Your task to perform on an android device: delete the emails in spam in the gmail app Image 0: 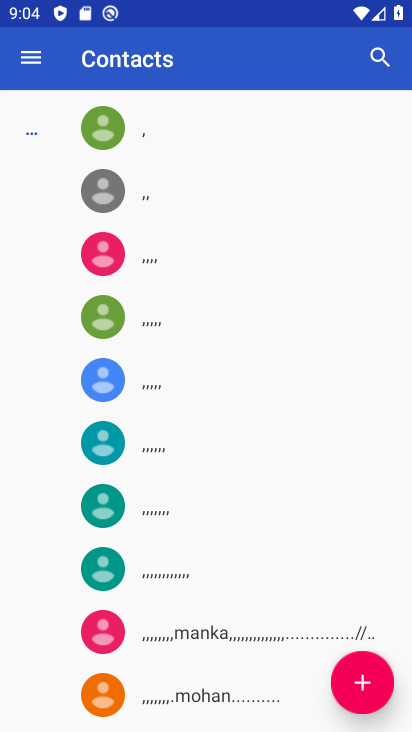
Step 0: press home button
Your task to perform on an android device: delete the emails in spam in the gmail app Image 1: 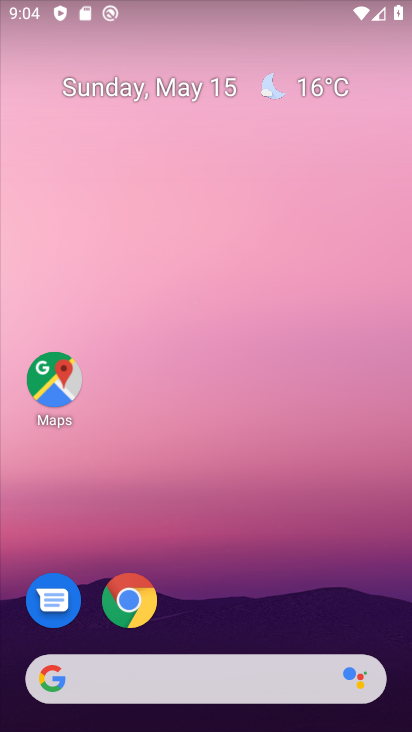
Step 1: drag from (256, 488) to (291, 201)
Your task to perform on an android device: delete the emails in spam in the gmail app Image 2: 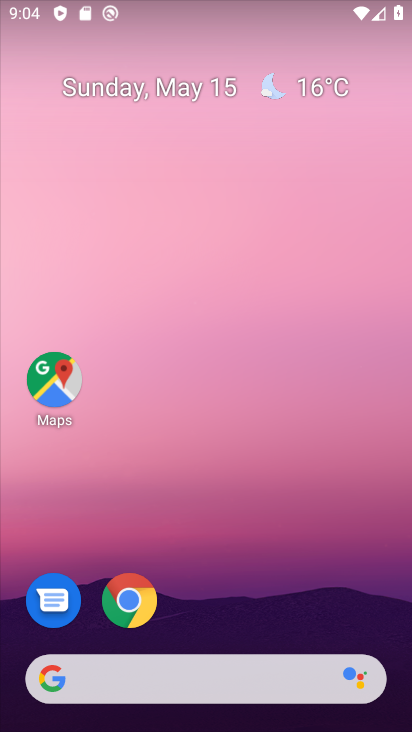
Step 2: drag from (259, 575) to (351, 278)
Your task to perform on an android device: delete the emails in spam in the gmail app Image 3: 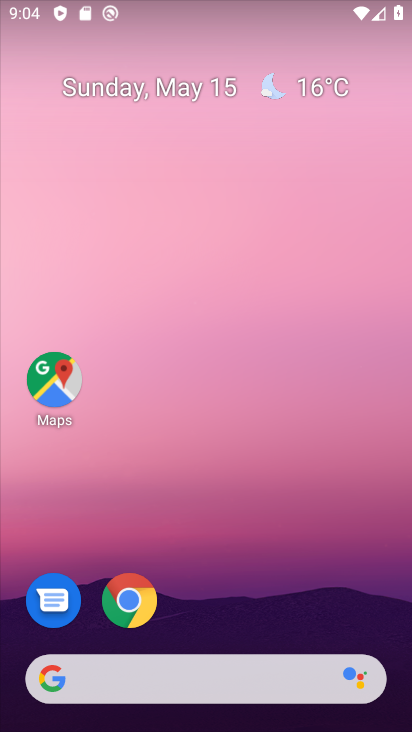
Step 3: drag from (247, 612) to (396, 124)
Your task to perform on an android device: delete the emails in spam in the gmail app Image 4: 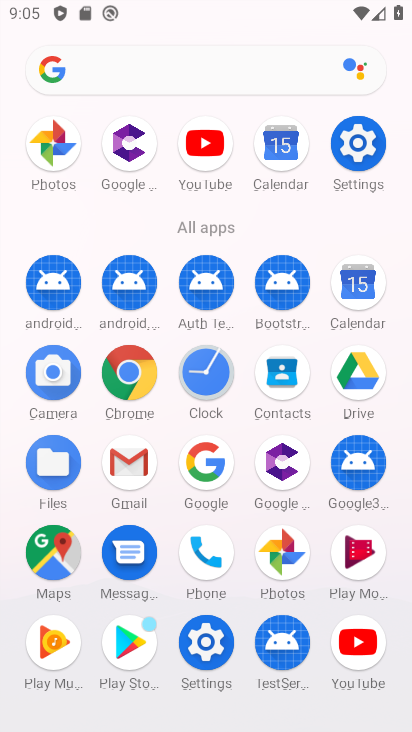
Step 4: click (135, 476)
Your task to perform on an android device: delete the emails in spam in the gmail app Image 5: 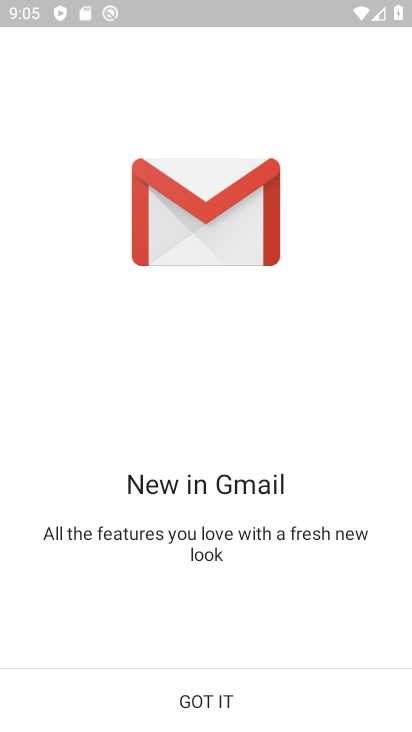
Step 5: click (188, 691)
Your task to perform on an android device: delete the emails in spam in the gmail app Image 6: 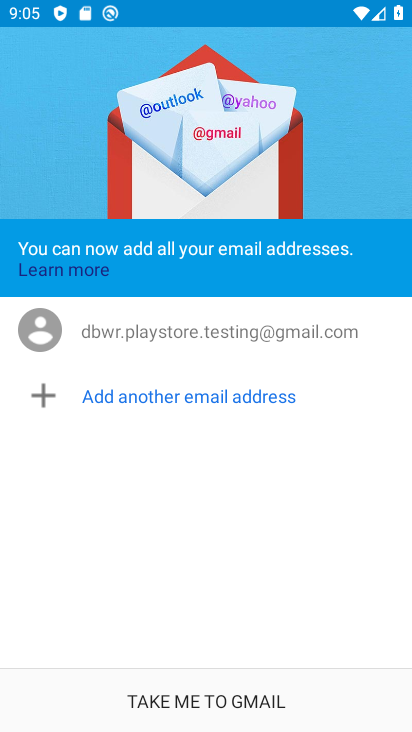
Step 6: click (217, 710)
Your task to perform on an android device: delete the emails in spam in the gmail app Image 7: 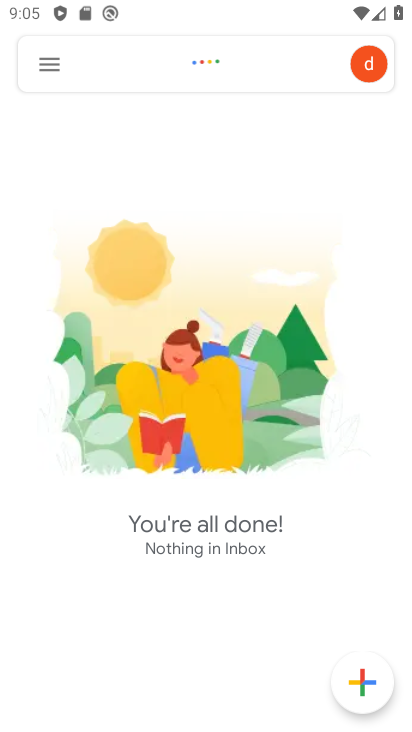
Step 7: drag from (54, 64) to (65, 108)
Your task to perform on an android device: delete the emails in spam in the gmail app Image 8: 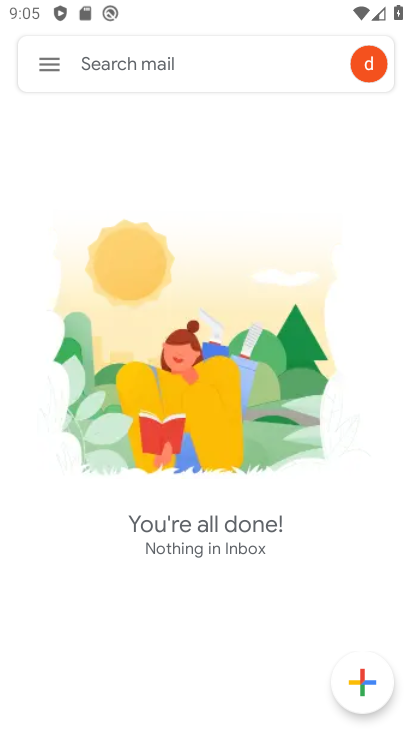
Step 8: click (44, 78)
Your task to perform on an android device: delete the emails in spam in the gmail app Image 9: 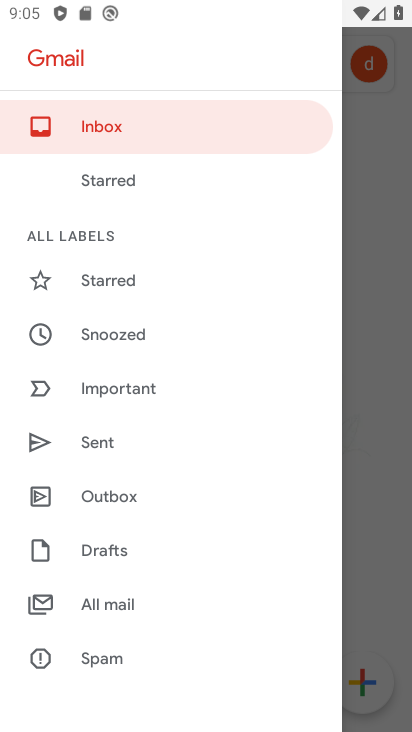
Step 9: click (142, 661)
Your task to perform on an android device: delete the emails in spam in the gmail app Image 10: 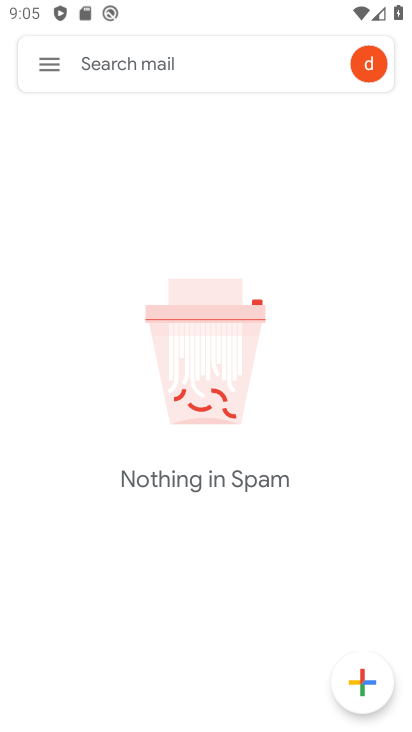
Step 10: task complete